Your task to perform on an android device: change keyboard looks Image 0: 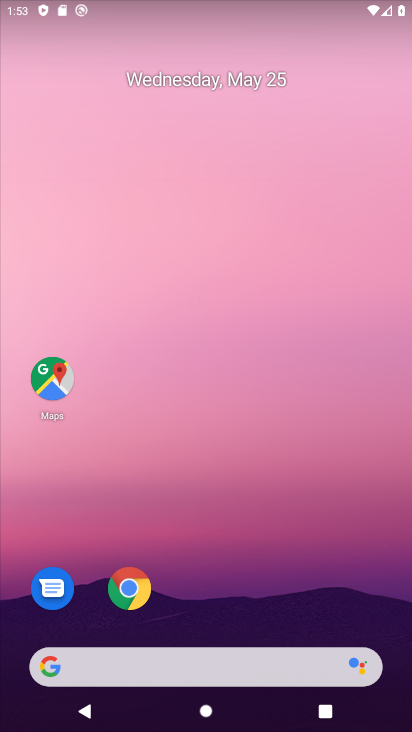
Step 0: drag from (225, 559) to (181, 76)
Your task to perform on an android device: change keyboard looks Image 1: 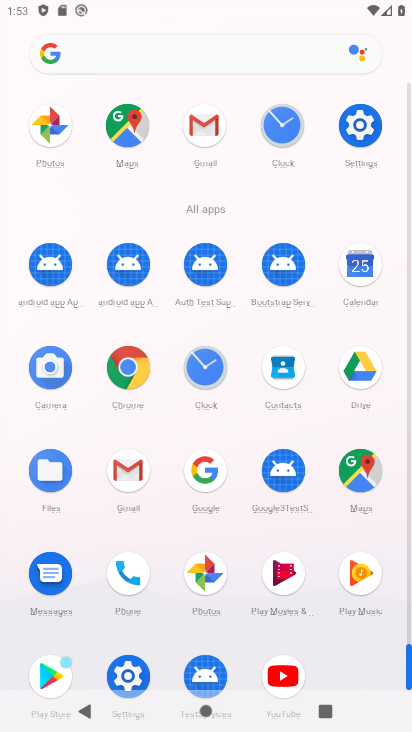
Step 1: drag from (0, 461) to (19, 188)
Your task to perform on an android device: change keyboard looks Image 2: 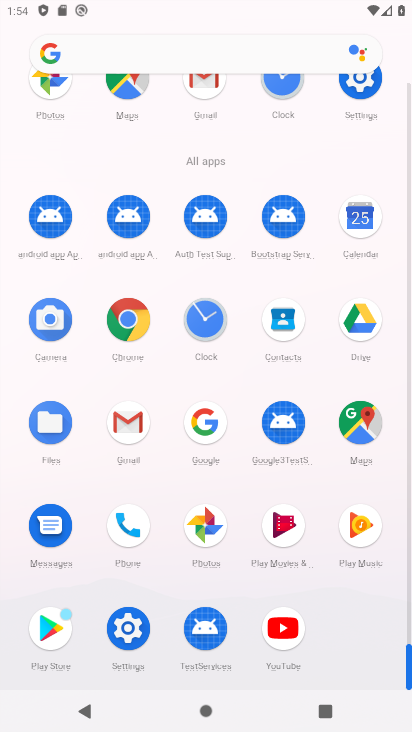
Step 2: click (128, 626)
Your task to perform on an android device: change keyboard looks Image 3: 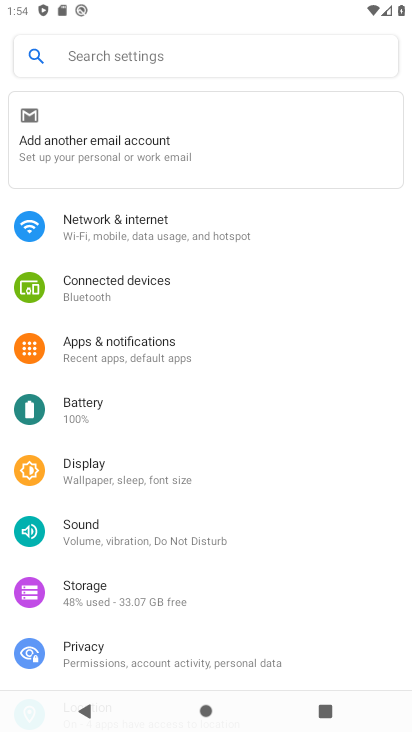
Step 3: drag from (258, 596) to (279, 182)
Your task to perform on an android device: change keyboard looks Image 4: 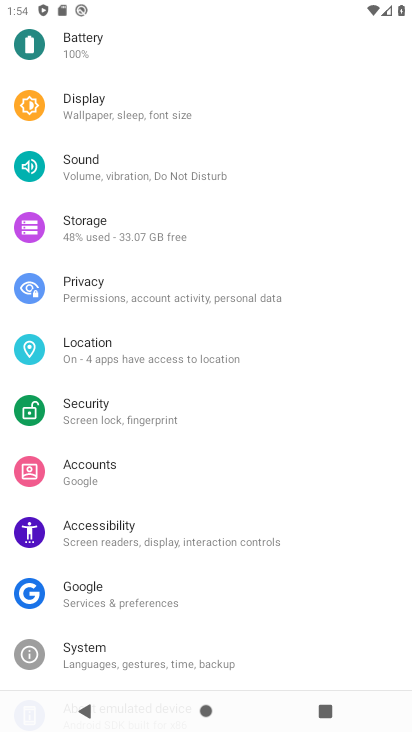
Step 4: drag from (233, 632) to (229, 258)
Your task to perform on an android device: change keyboard looks Image 5: 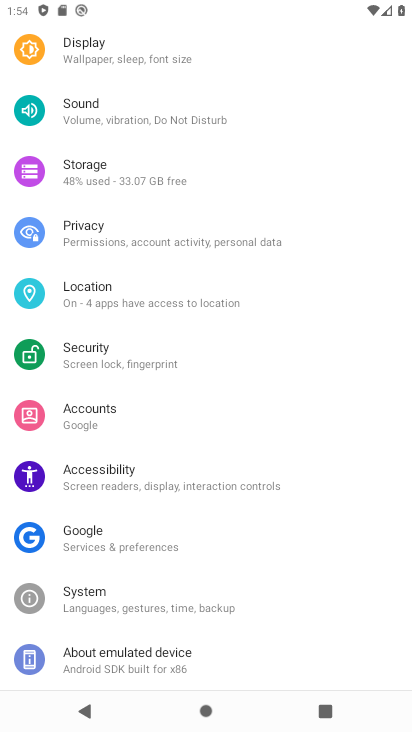
Step 5: drag from (183, 591) to (217, 161)
Your task to perform on an android device: change keyboard looks Image 6: 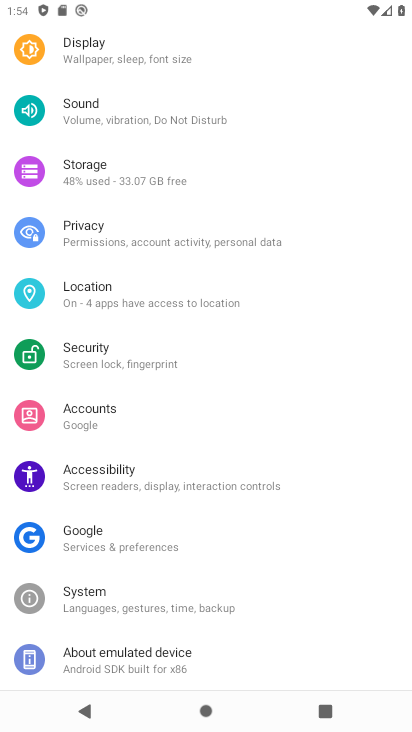
Step 6: click (137, 657)
Your task to perform on an android device: change keyboard looks Image 7: 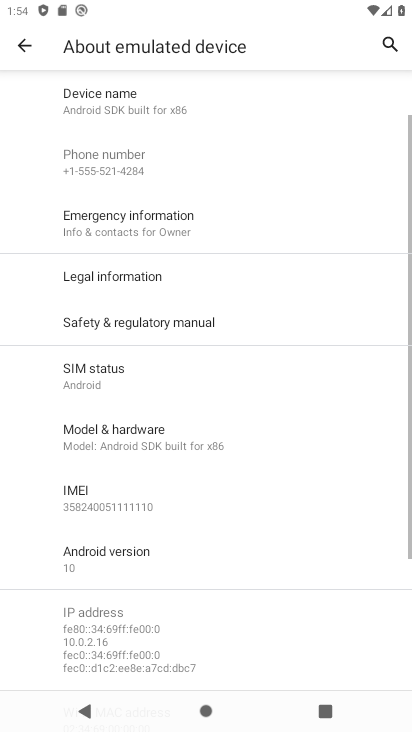
Step 7: task complete